Your task to perform on an android device: Open Google Chrome Image 0: 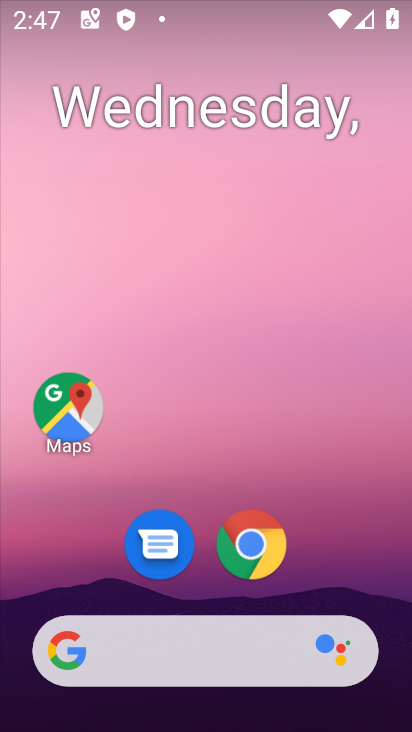
Step 0: drag from (395, 586) to (397, 182)
Your task to perform on an android device: Open Google Chrome Image 1: 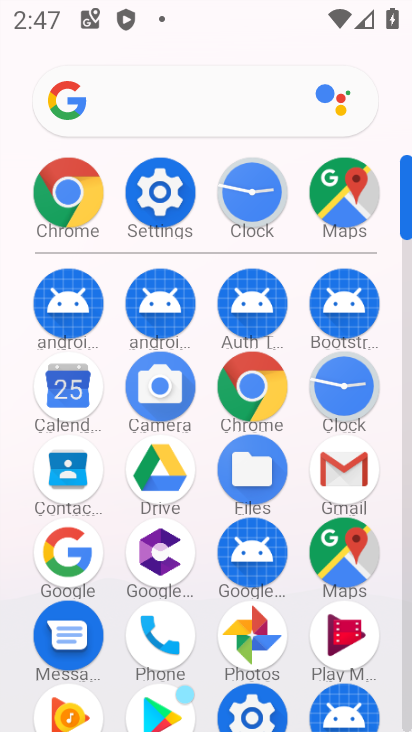
Step 1: click (267, 393)
Your task to perform on an android device: Open Google Chrome Image 2: 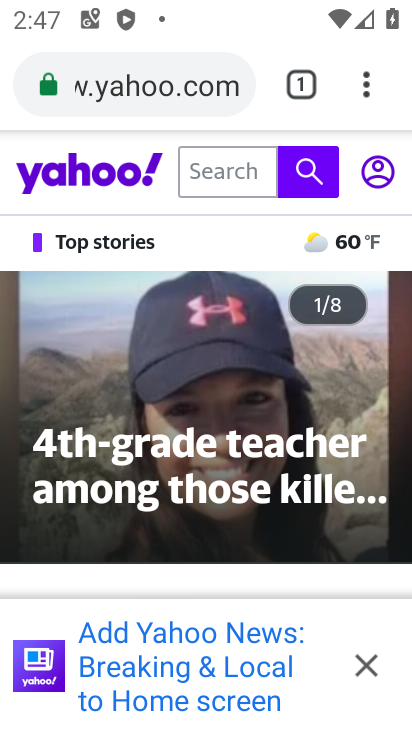
Step 2: click (367, 673)
Your task to perform on an android device: Open Google Chrome Image 3: 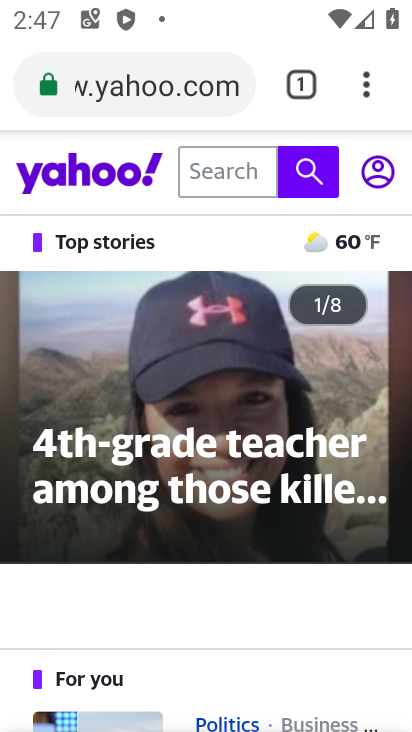
Step 3: task complete